Your task to perform on an android device: Go to network settings Image 0: 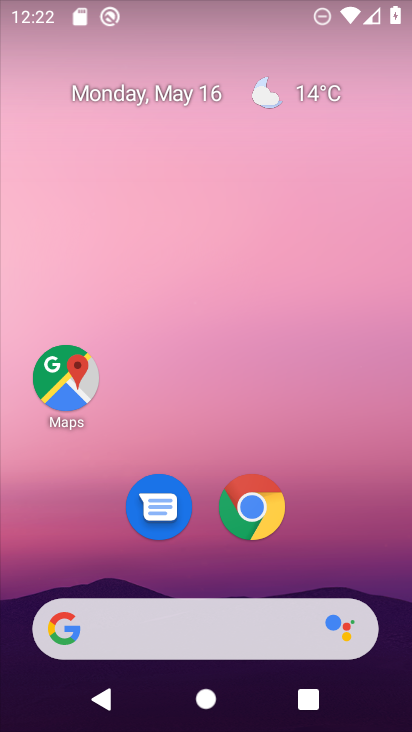
Step 0: drag from (324, 550) to (377, 141)
Your task to perform on an android device: Go to network settings Image 1: 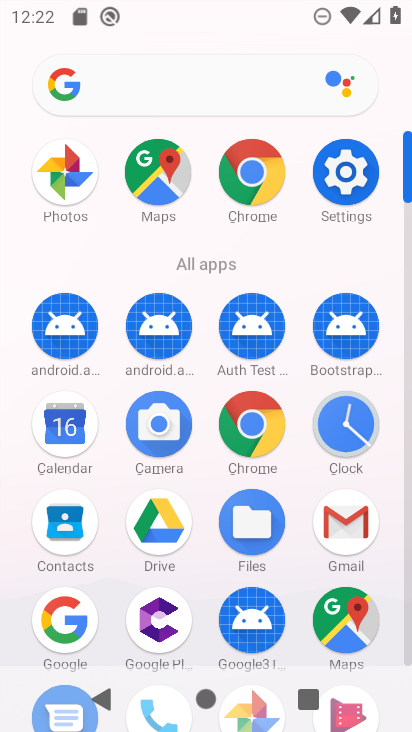
Step 1: click (362, 187)
Your task to perform on an android device: Go to network settings Image 2: 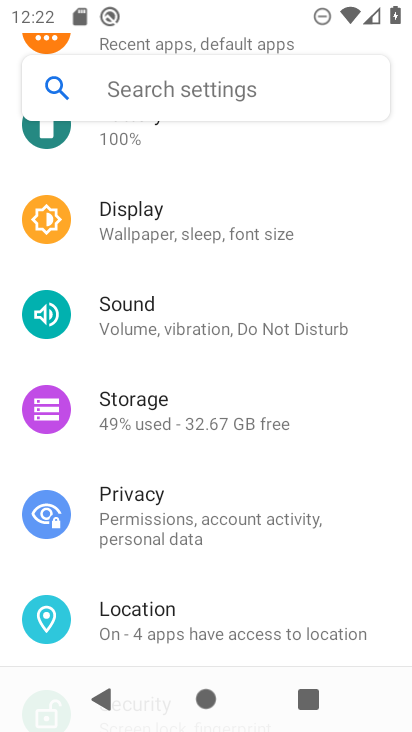
Step 2: drag from (312, 214) to (294, 606)
Your task to perform on an android device: Go to network settings Image 3: 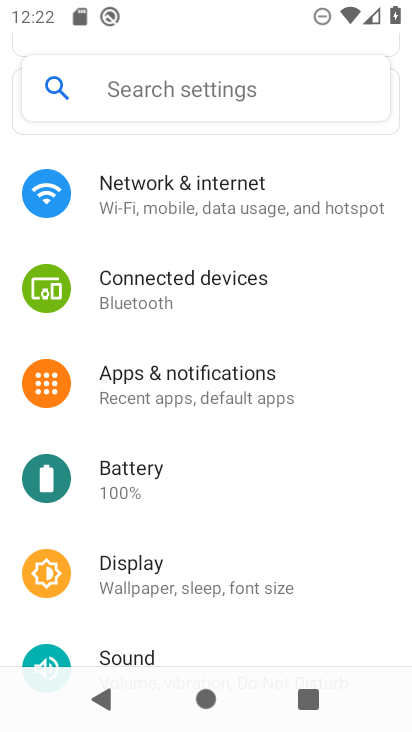
Step 3: click (243, 201)
Your task to perform on an android device: Go to network settings Image 4: 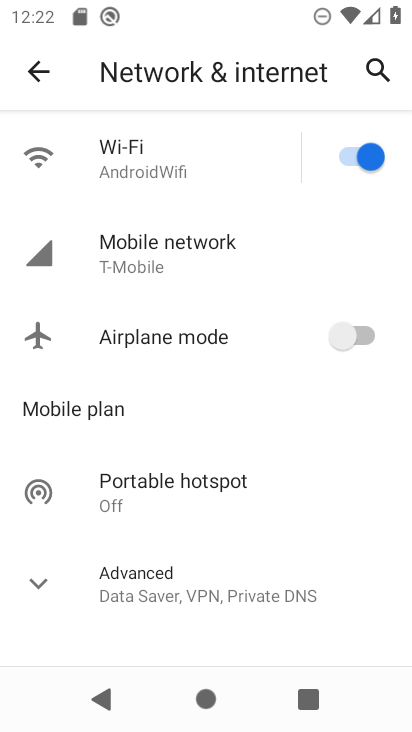
Step 4: task complete